Your task to perform on an android device: Go to eBay Image 0: 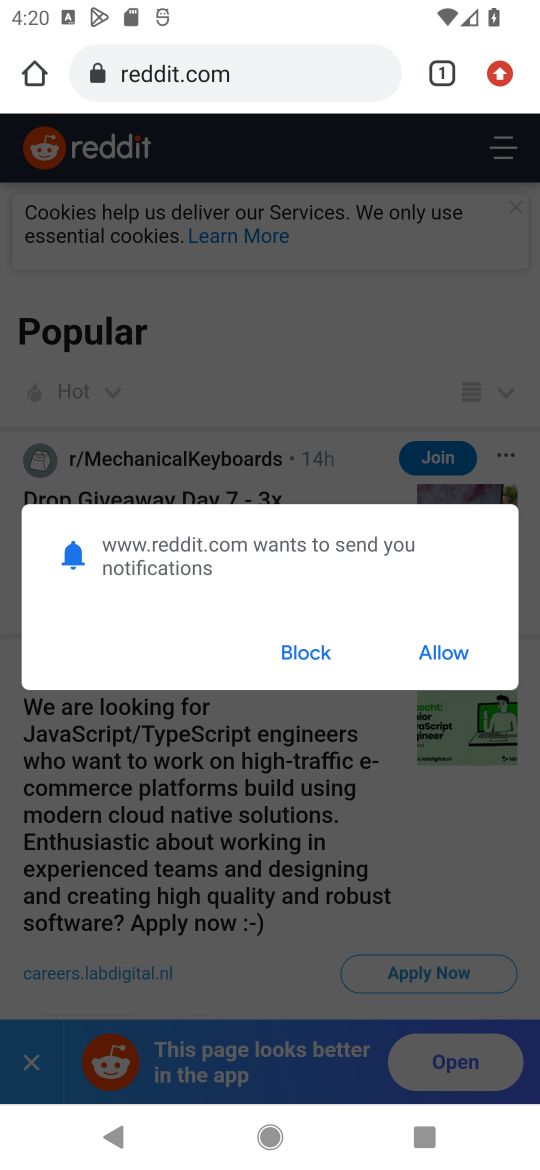
Step 0: click (226, 74)
Your task to perform on an android device: Go to eBay Image 1: 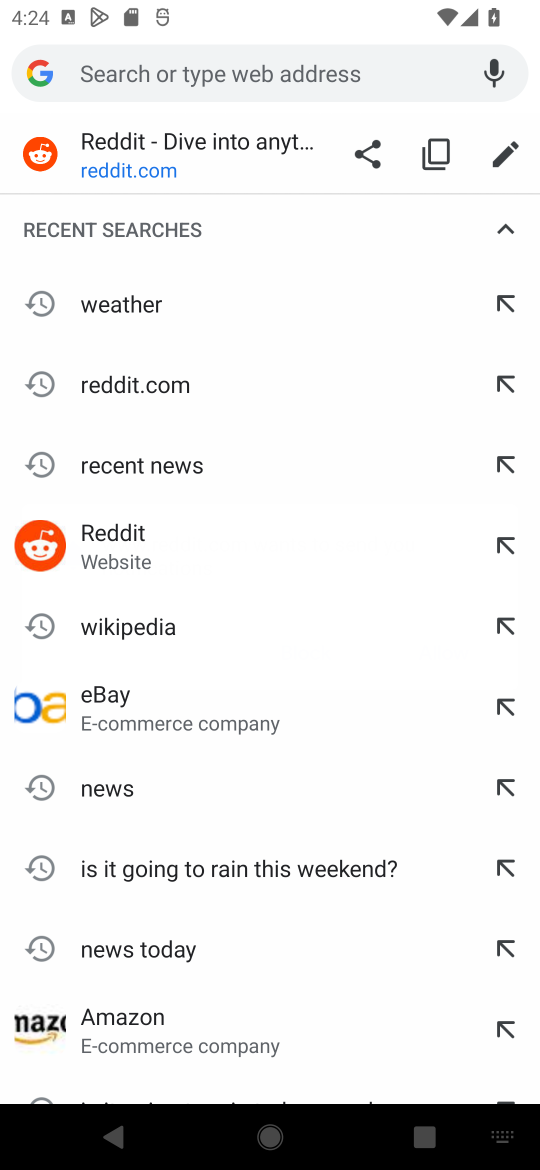
Step 1: task complete